Your task to perform on an android device: Open Google Chrome and open the bookmarks view Image 0: 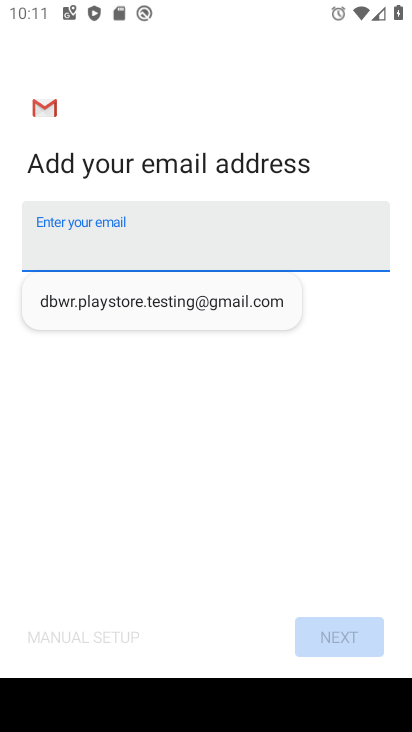
Step 0: press home button
Your task to perform on an android device: Open Google Chrome and open the bookmarks view Image 1: 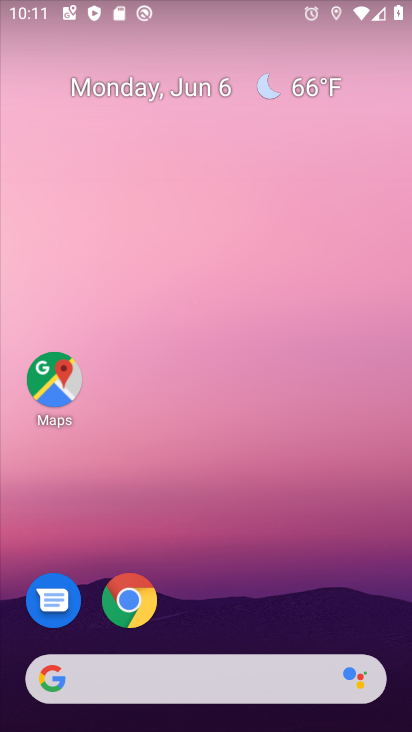
Step 1: click (116, 598)
Your task to perform on an android device: Open Google Chrome and open the bookmarks view Image 2: 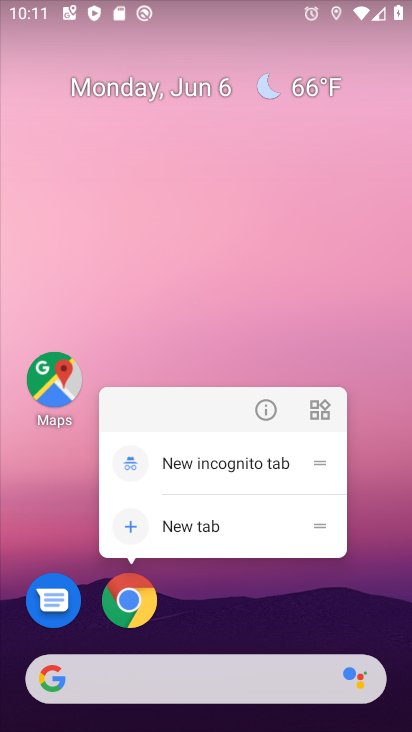
Step 2: click (111, 600)
Your task to perform on an android device: Open Google Chrome and open the bookmarks view Image 3: 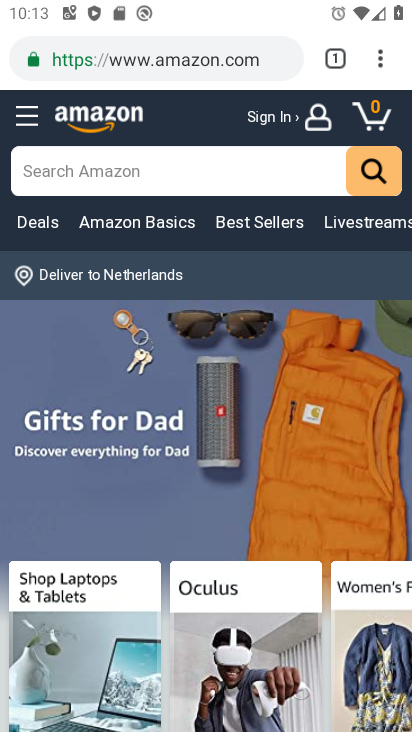
Step 3: click (378, 53)
Your task to perform on an android device: Open Google Chrome and open the bookmarks view Image 4: 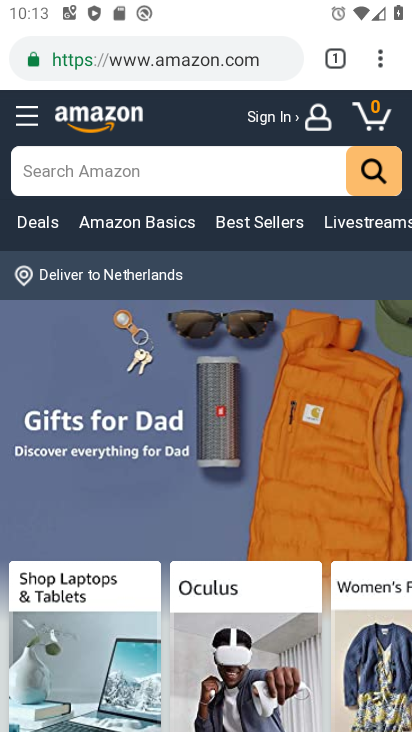
Step 4: click (385, 57)
Your task to perform on an android device: Open Google Chrome and open the bookmarks view Image 5: 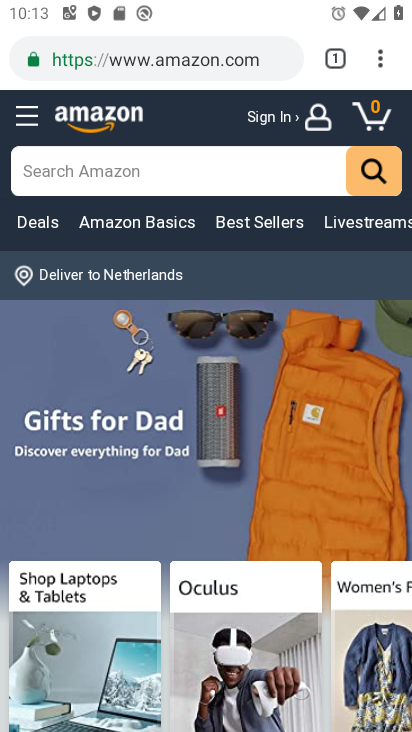
Step 5: click (383, 63)
Your task to perform on an android device: Open Google Chrome and open the bookmarks view Image 6: 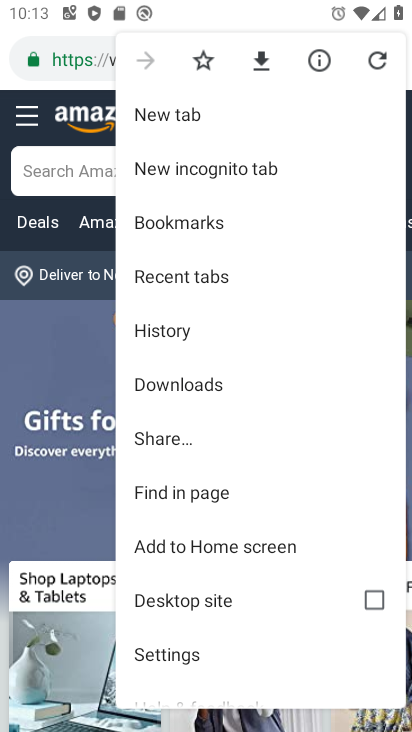
Step 6: click (201, 218)
Your task to perform on an android device: Open Google Chrome and open the bookmarks view Image 7: 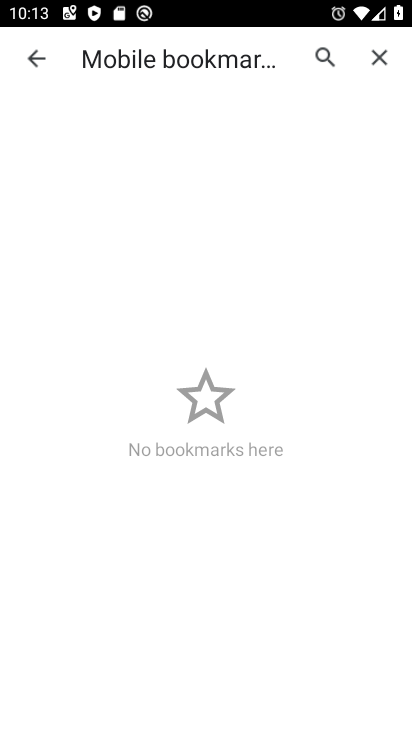
Step 7: task complete